Your task to perform on an android device: toggle translation in the chrome app Image 0: 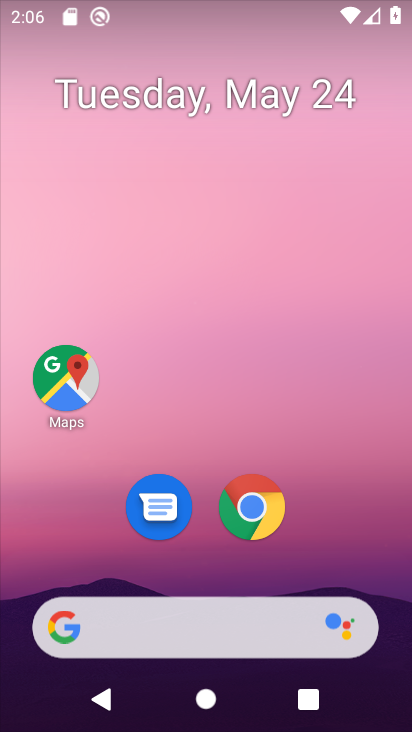
Step 0: task complete